Your task to perform on an android device: Go to Yahoo.com Image 0: 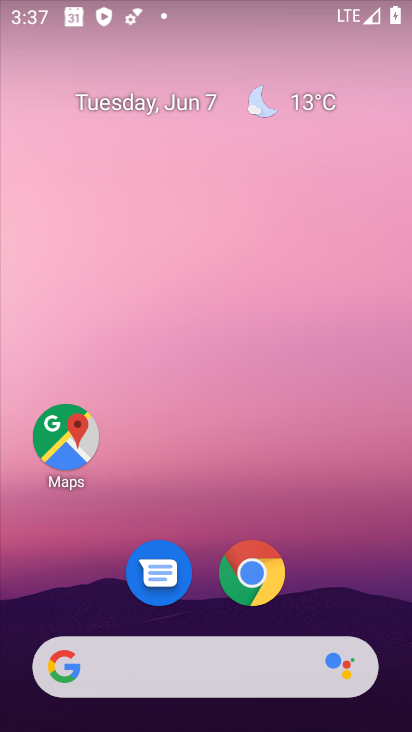
Step 0: drag from (381, 621) to (267, 242)
Your task to perform on an android device: Go to Yahoo.com Image 1: 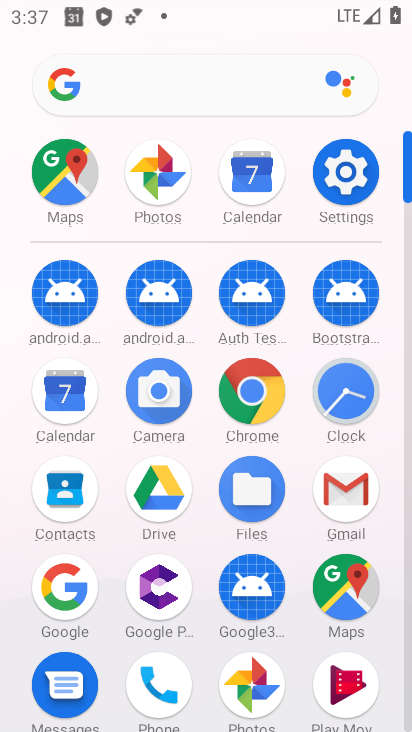
Step 1: click (277, 404)
Your task to perform on an android device: Go to Yahoo.com Image 2: 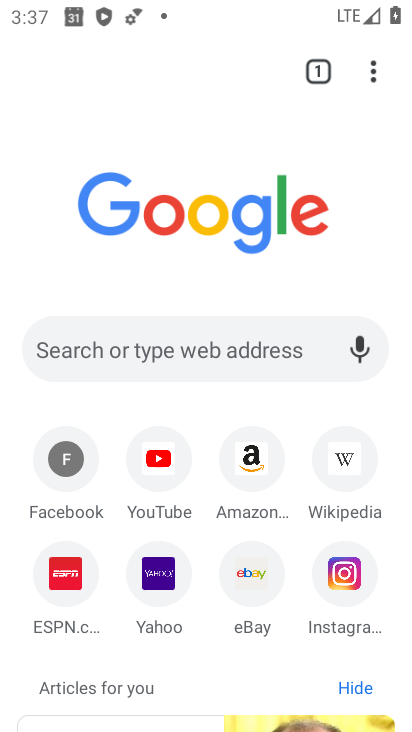
Step 2: click (176, 595)
Your task to perform on an android device: Go to Yahoo.com Image 3: 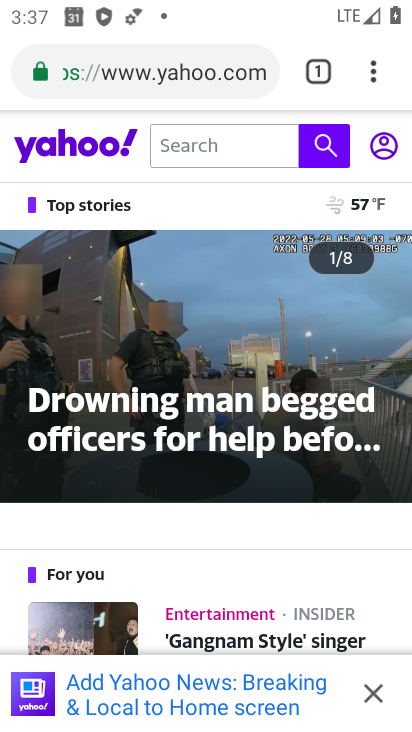
Step 3: task complete